Your task to perform on an android device: Open the web browser Image 0: 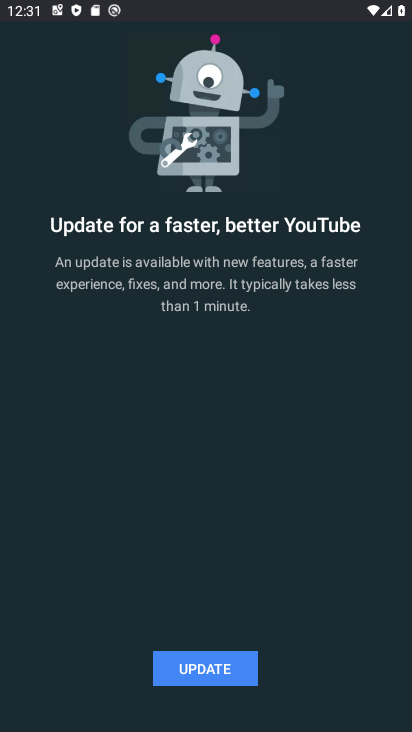
Step 0: press home button
Your task to perform on an android device: Open the web browser Image 1: 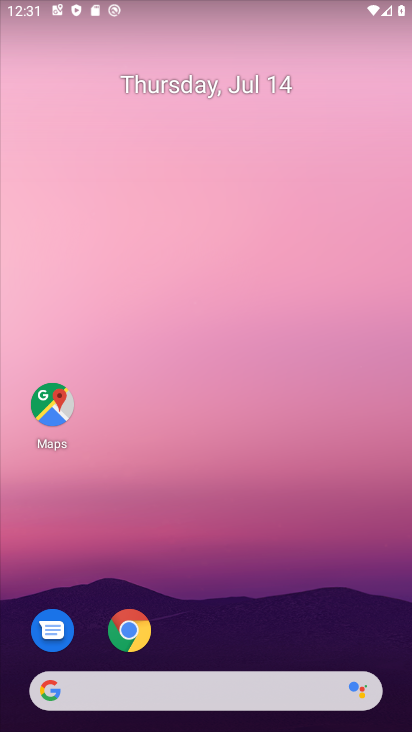
Step 1: click (119, 620)
Your task to perform on an android device: Open the web browser Image 2: 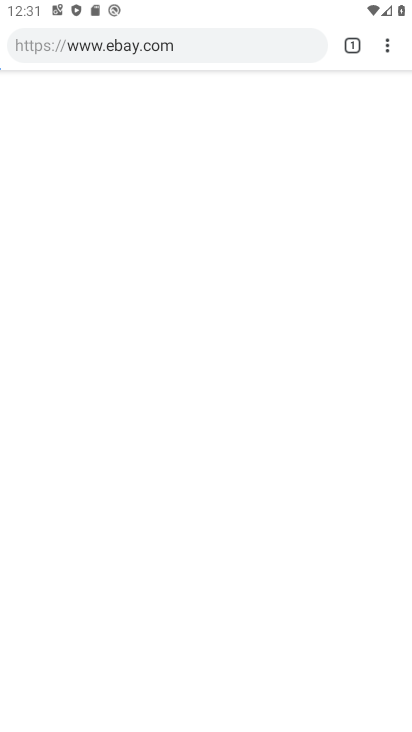
Step 2: task complete